Your task to perform on an android device: Search for vegetarian restaurants on Maps Image 0: 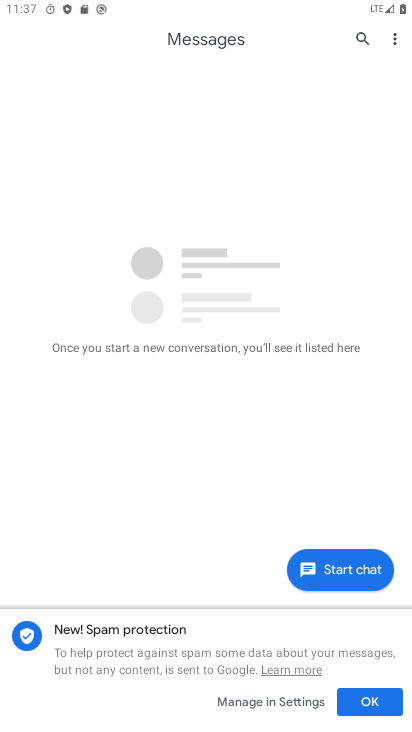
Step 0: press home button
Your task to perform on an android device: Search for vegetarian restaurants on Maps Image 1: 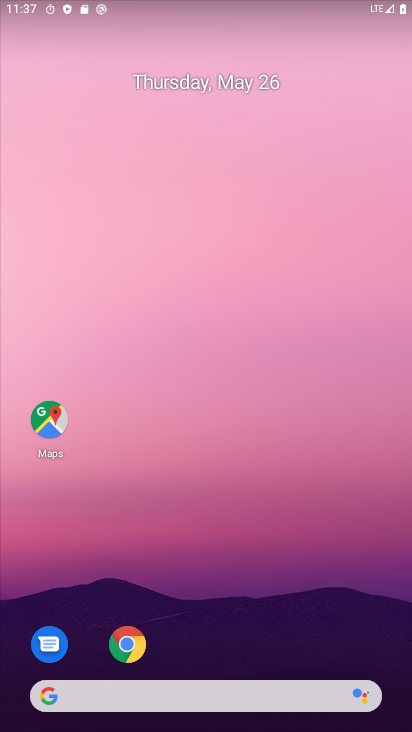
Step 1: click (51, 423)
Your task to perform on an android device: Search for vegetarian restaurants on Maps Image 2: 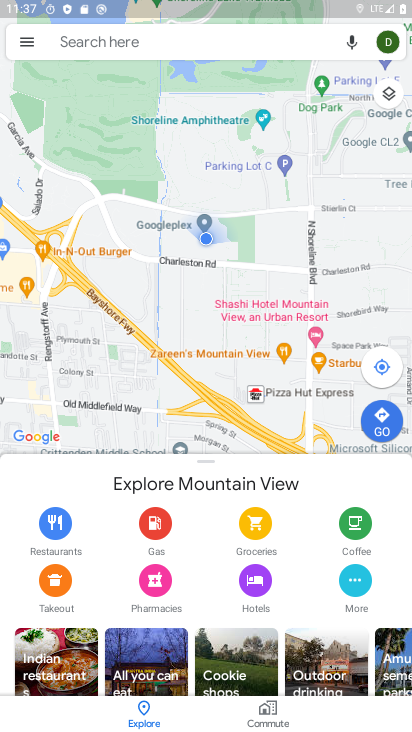
Step 2: click (192, 41)
Your task to perform on an android device: Search for vegetarian restaurants on Maps Image 3: 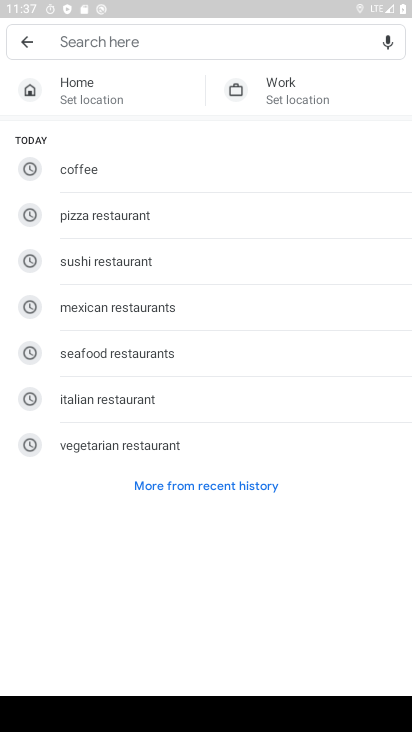
Step 3: click (77, 446)
Your task to perform on an android device: Search for vegetarian restaurants on Maps Image 4: 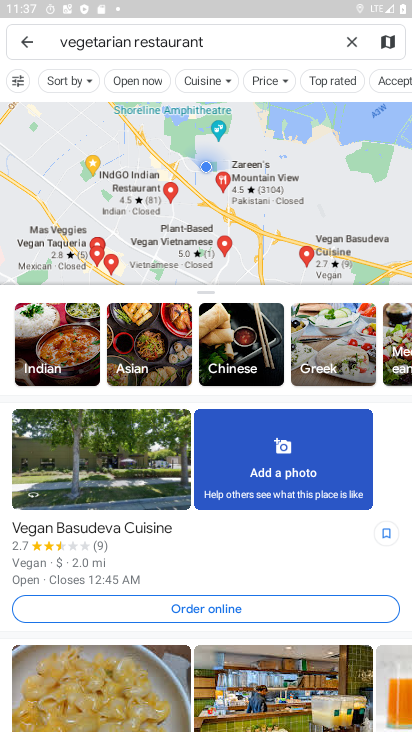
Step 4: task complete